Your task to perform on an android device: Open Google Chrome and click the shortcut for Amazon.com Image 0: 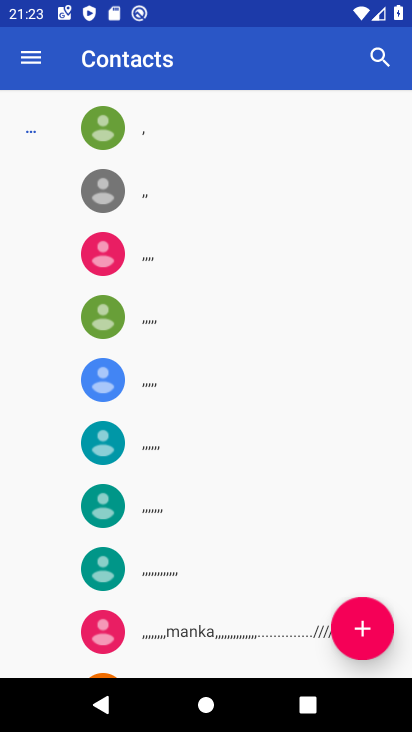
Step 0: press home button
Your task to perform on an android device: Open Google Chrome and click the shortcut for Amazon.com Image 1: 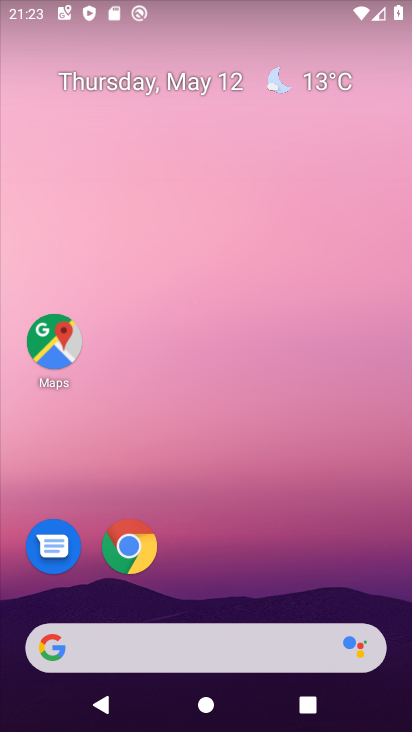
Step 1: click (140, 536)
Your task to perform on an android device: Open Google Chrome and click the shortcut for Amazon.com Image 2: 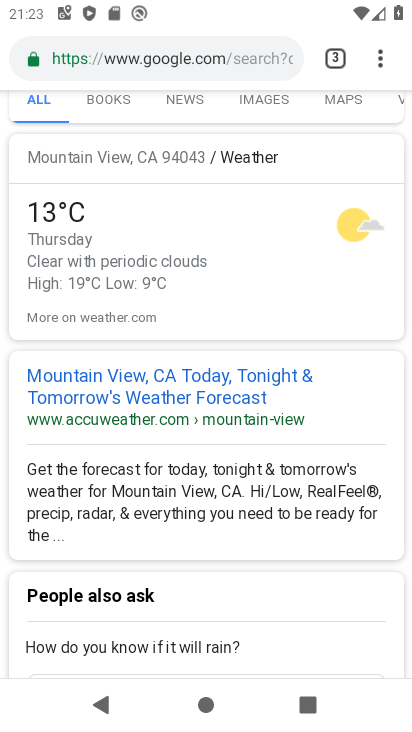
Step 2: drag from (377, 49) to (176, 126)
Your task to perform on an android device: Open Google Chrome and click the shortcut for Amazon.com Image 3: 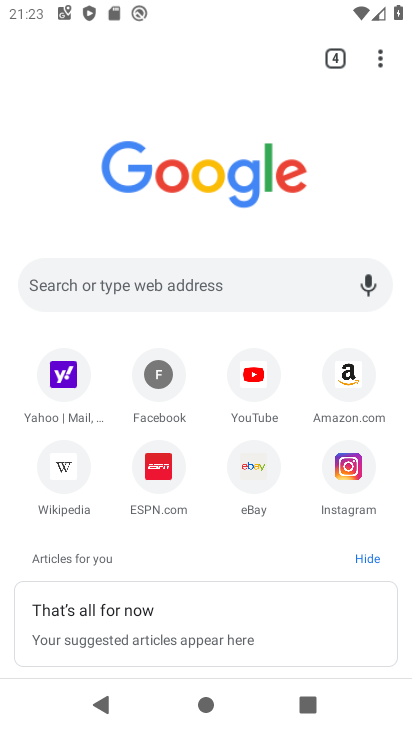
Step 3: click (350, 368)
Your task to perform on an android device: Open Google Chrome and click the shortcut for Amazon.com Image 4: 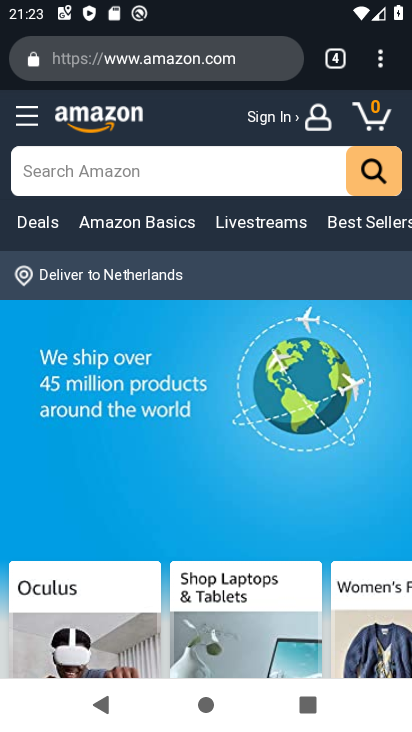
Step 4: task complete